Your task to perform on an android device: visit the assistant section in the google photos Image 0: 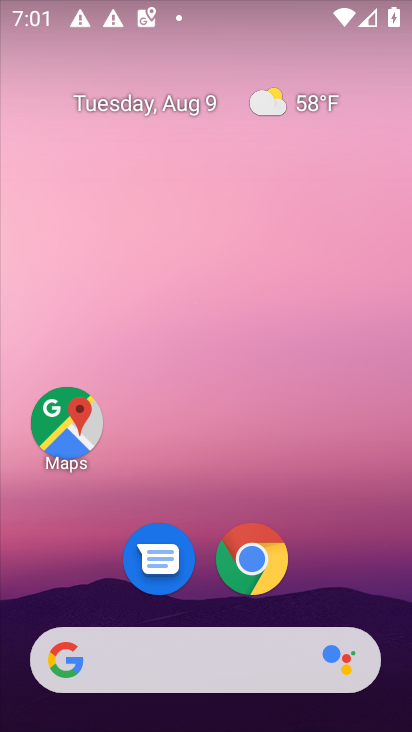
Step 0: drag from (198, 393) to (192, 141)
Your task to perform on an android device: visit the assistant section in the google photos Image 1: 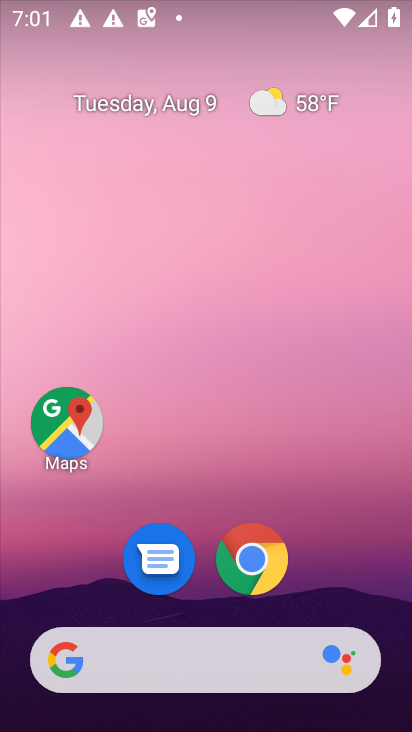
Step 1: drag from (206, 598) to (206, 179)
Your task to perform on an android device: visit the assistant section in the google photos Image 2: 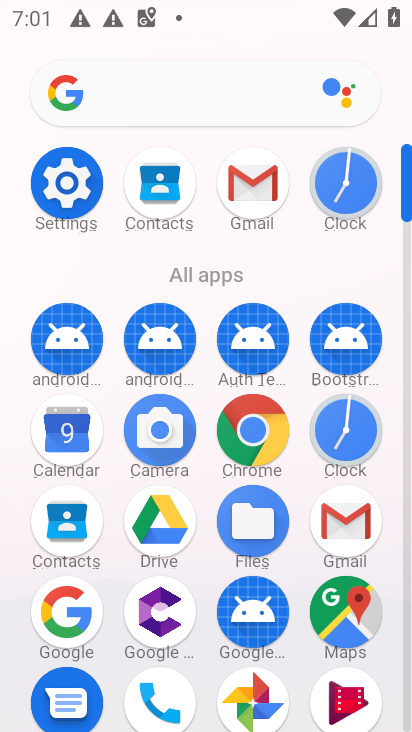
Step 2: click (254, 692)
Your task to perform on an android device: visit the assistant section in the google photos Image 3: 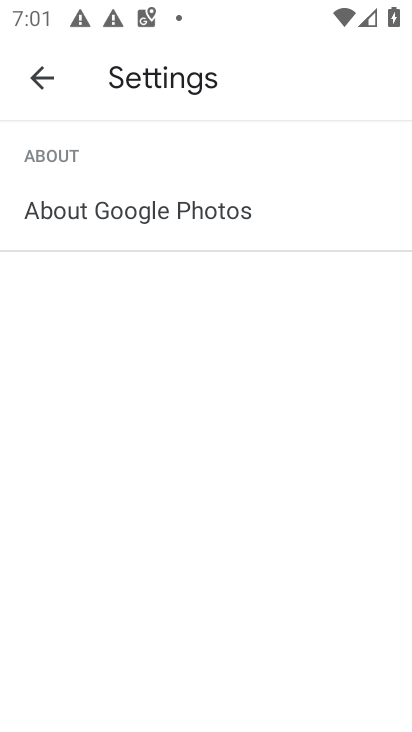
Step 3: click (43, 87)
Your task to perform on an android device: visit the assistant section in the google photos Image 4: 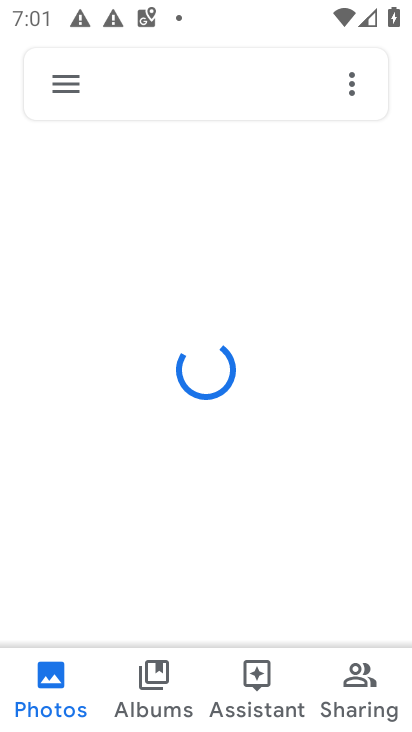
Step 4: click (250, 712)
Your task to perform on an android device: visit the assistant section in the google photos Image 5: 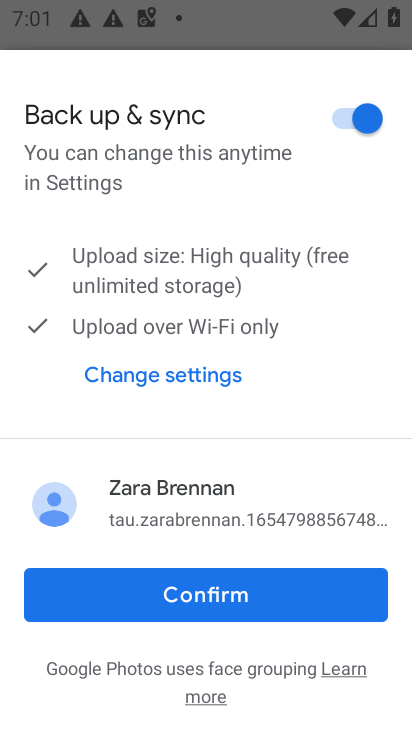
Step 5: task complete